Your task to perform on an android device: Open display settings Image 0: 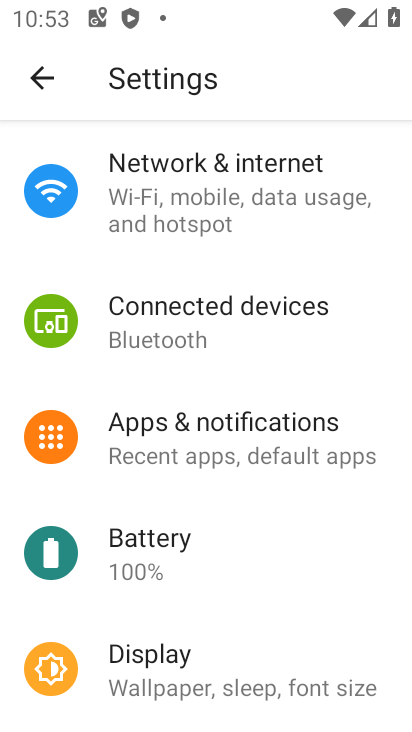
Step 0: click (132, 657)
Your task to perform on an android device: Open display settings Image 1: 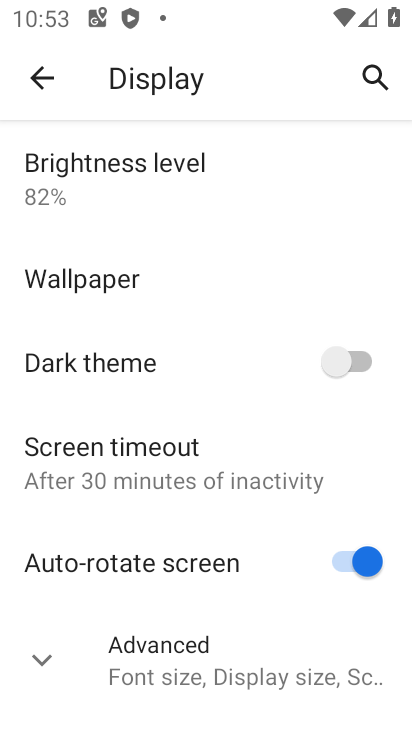
Step 1: task complete